Your task to perform on an android device: open sync settings in chrome Image 0: 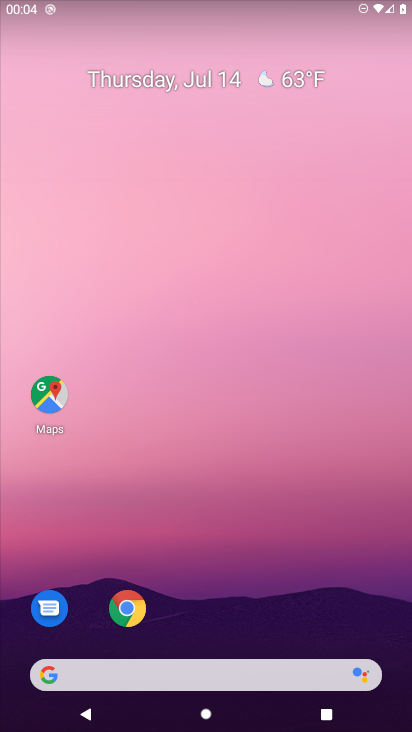
Step 0: drag from (218, 633) to (170, 207)
Your task to perform on an android device: open sync settings in chrome Image 1: 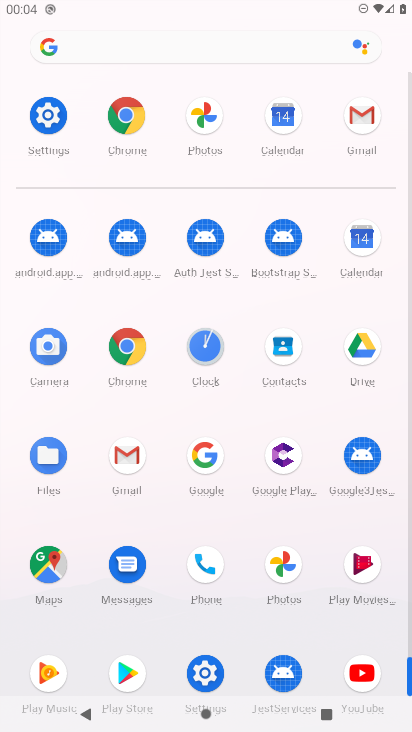
Step 1: click (129, 124)
Your task to perform on an android device: open sync settings in chrome Image 2: 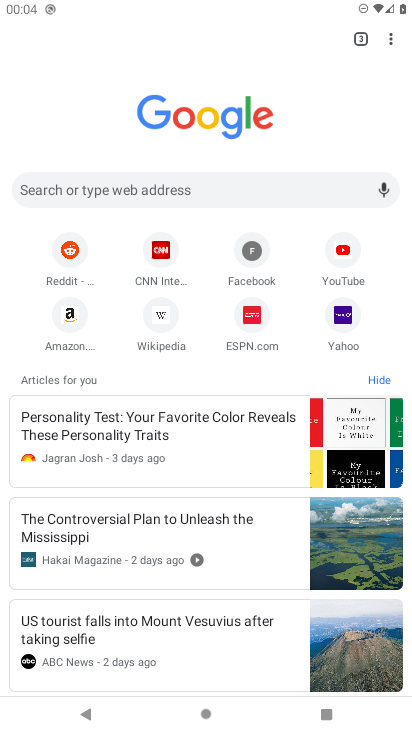
Step 2: drag from (387, 39) to (260, 322)
Your task to perform on an android device: open sync settings in chrome Image 3: 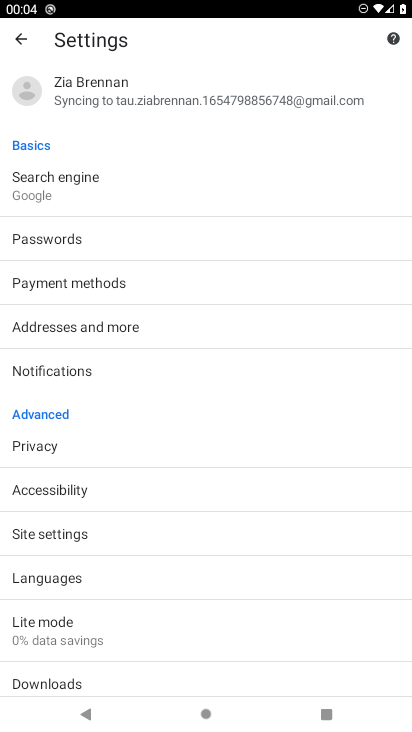
Step 3: click (119, 107)
Your task to perform on an android device: open sync settings in chrome Image 4: 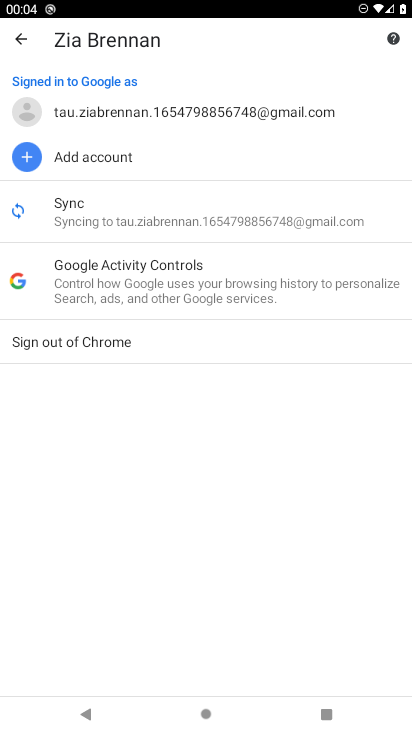
Step 4: click (101, 220)
Your task to perform on an android device: open sync settings in chrome Image 5: 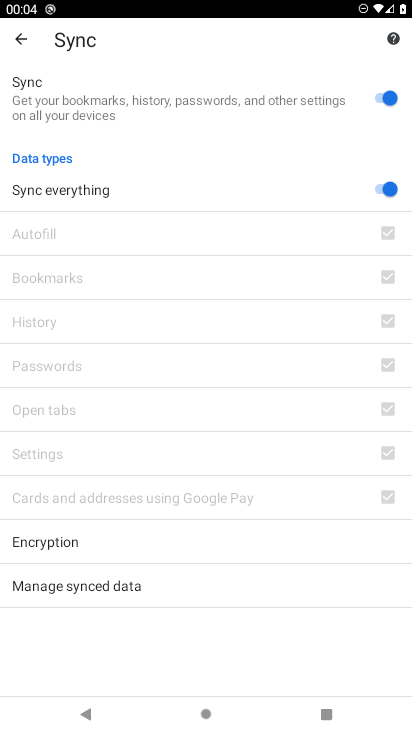
Step 5: task complete